Your task to perform on an android device: toggle show notifications on the lock screen Image 0: 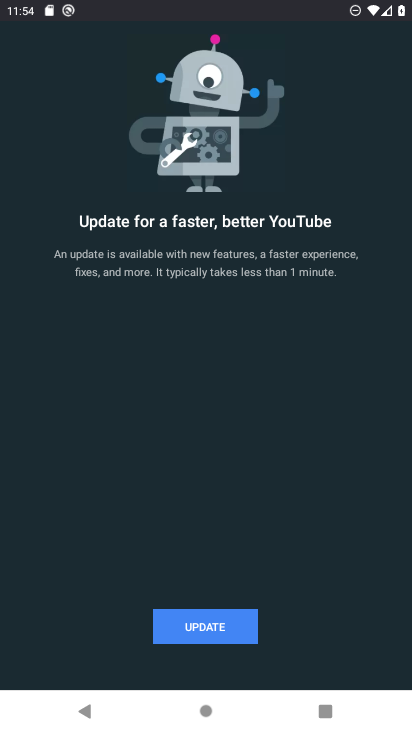
Step 0: press home button
Your task to perform on an android device: toggle show notifications on the lock screen Image 1: 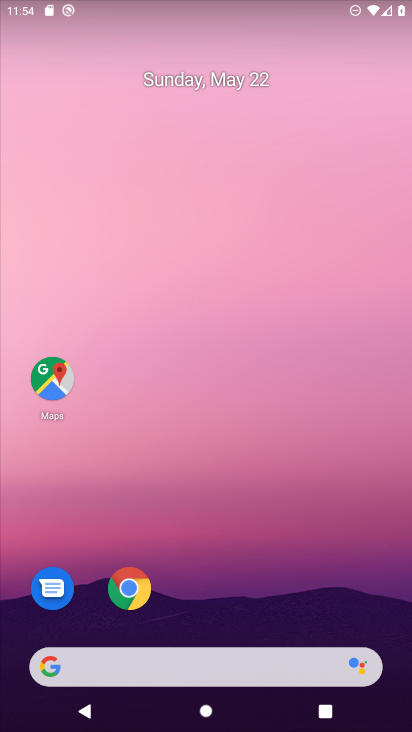
Step 1: drag from (281, 680) to (233, 282)
Your task to perform on an android device: toggle show notifications on the lock screen Image 2: 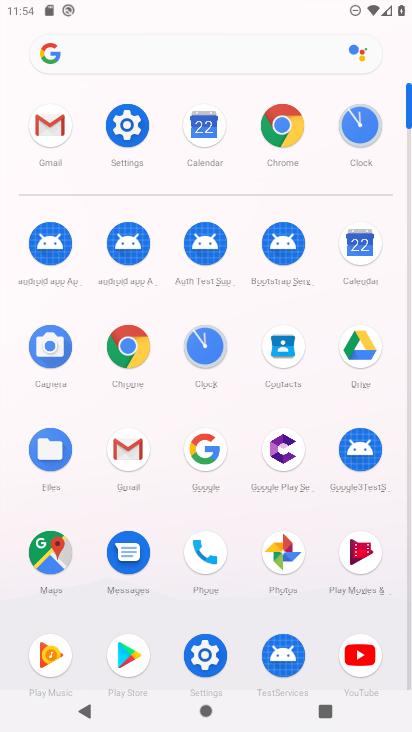
Step 2: click (200, 655)
Your task to perform on an android device: toggle show notifications on the lock screen Image 3: 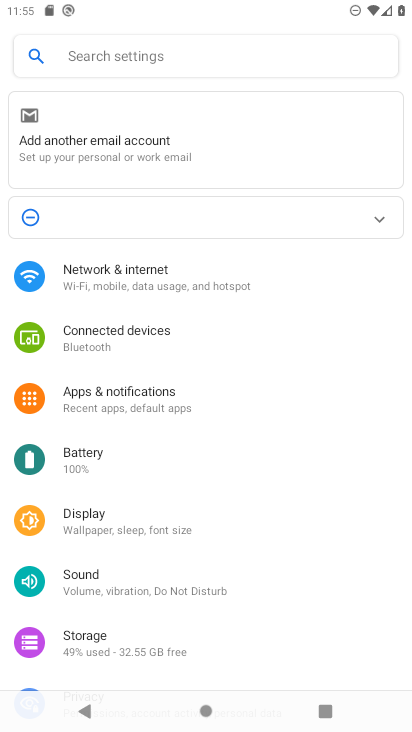
Step 3: click (146, 57)
Your task to perform on an android device: toggle show notifications on the lock screen Image 4: 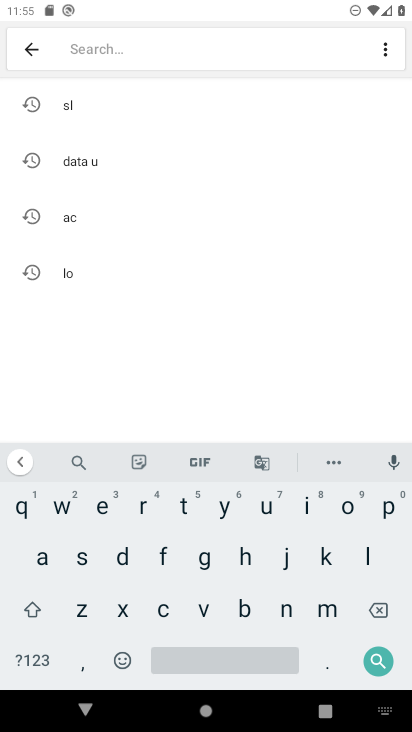
Step 4: click (285, 609)
Your task to perform on an android device: toggle show notifications on the lock screen Image 5: 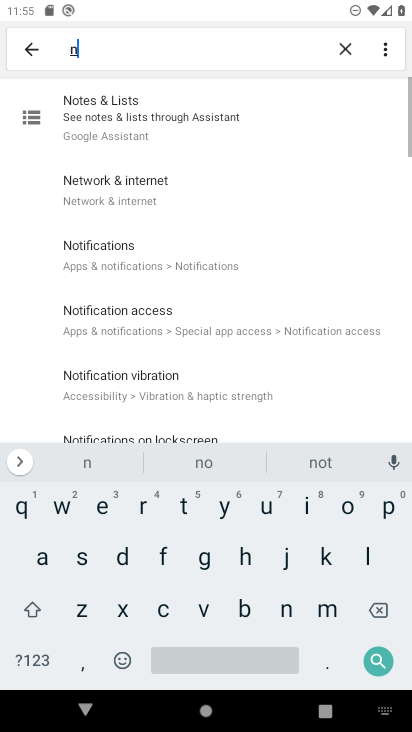
Step 5: click (344, 505)
Your task to perform on an android device: toggle show notifications on the lock screen Image 6: 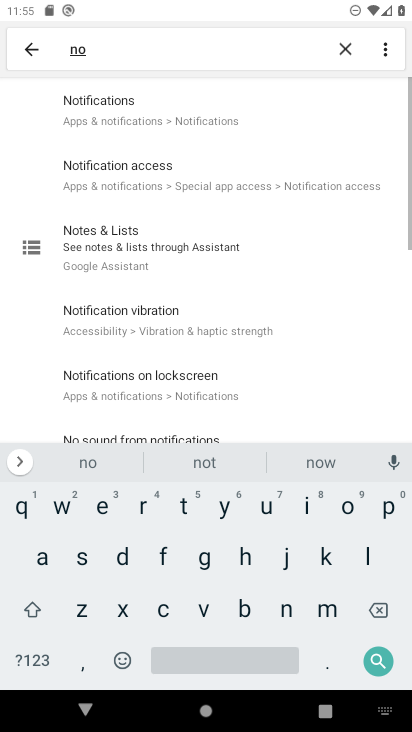
Step 6: click (134, 124)
Your task to perform on an android device: toggle show notifications on the lock screen Image 7: 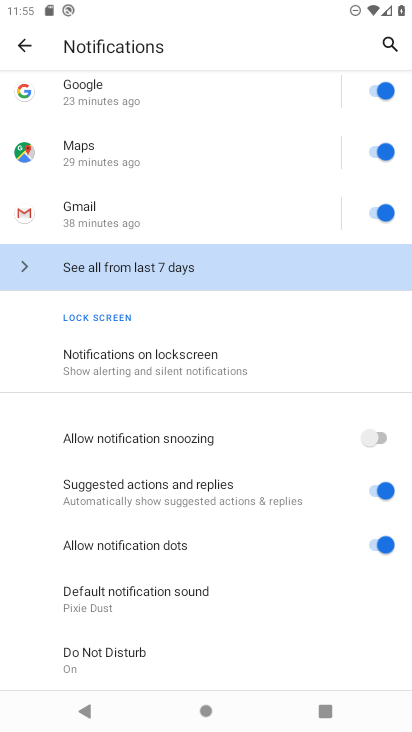
Step 7: click (119, 350)
Your task to perform on an android device: toggle show notifications on the lock screen Image 8: 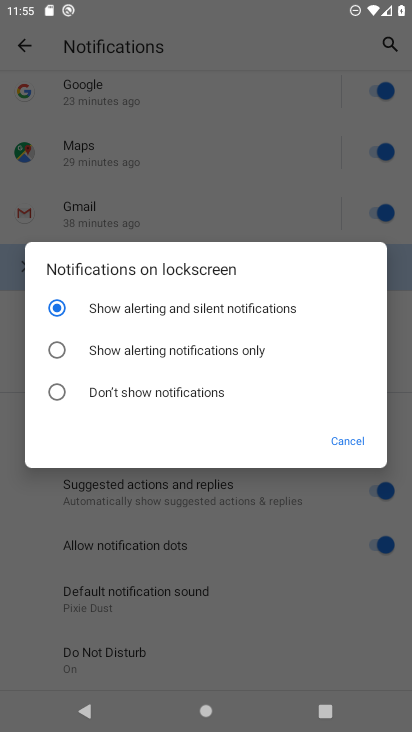
Step 8: task complete